Your task to perform on an android device: Show me popular games on the Play Store Image 0: 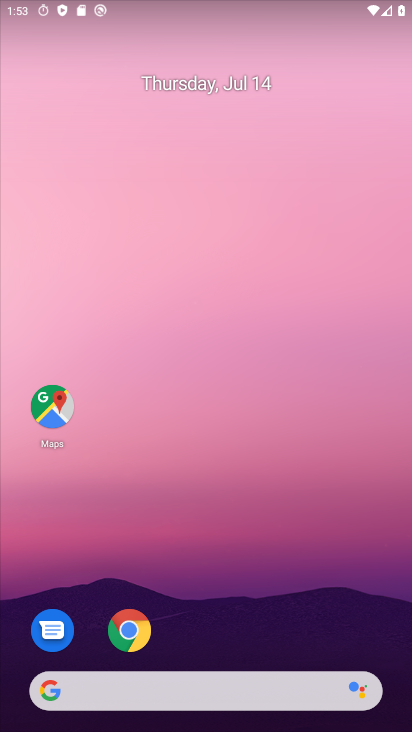
Step 0: drag from (180, 651) to (228, 350)
Your task to perform on an android device: Show me popular games on the Play Store Image 1: 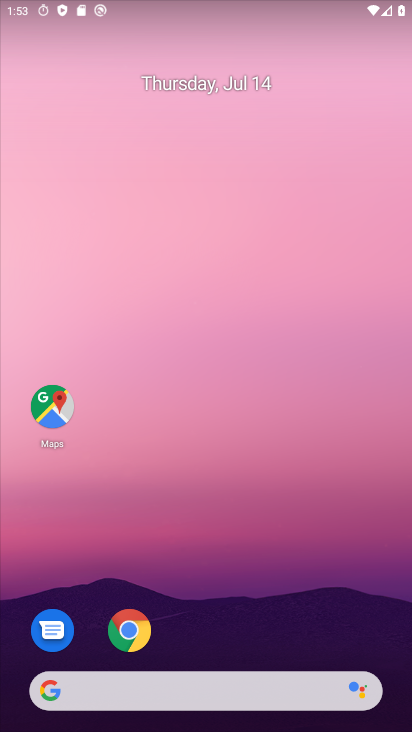
Step 1: drag from (182, 660) to (257, 191)
Your task to perform on an android device: Show me popular games on the Play Store Image 2: 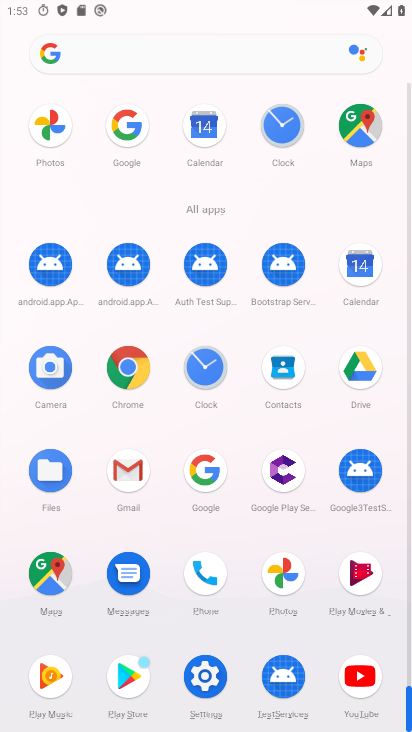
Step 2: click (116, 682)
Your task to perform on an android device: Show me popular games on the Play Store Image 3: 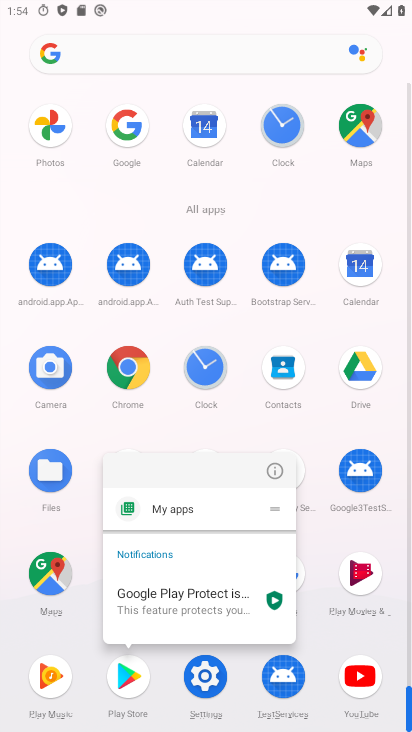
Step 3: click (272, 473)
Your task to perform on an android device: Show me popular games on the Play Store Image 4: 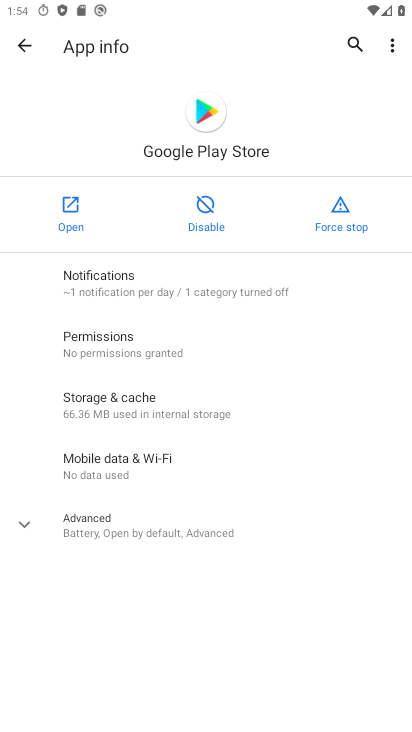
Step 4: click (71, 224)
Your task to perform on an android device: Show me popular games on the Play Store Image 5: 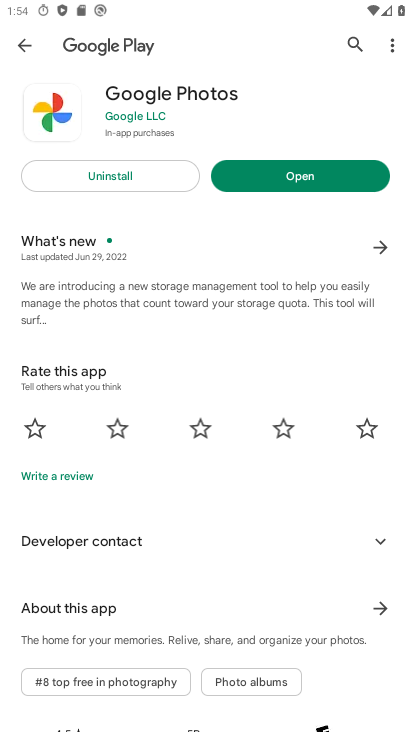
Step 5: click (16, 46)
Your task to perform on an android device: Show me popular games on the Play Store Image 6: 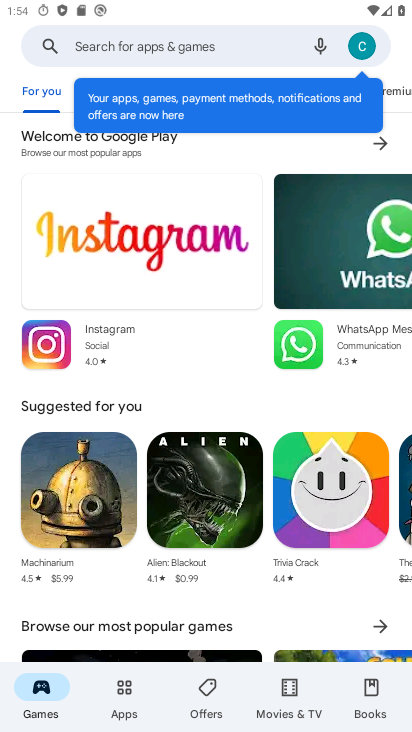
Step 6: drag from (266, 630) to (294, 317)
Your task to perform on an android device: Show me popular games on the Play Store Image 7: 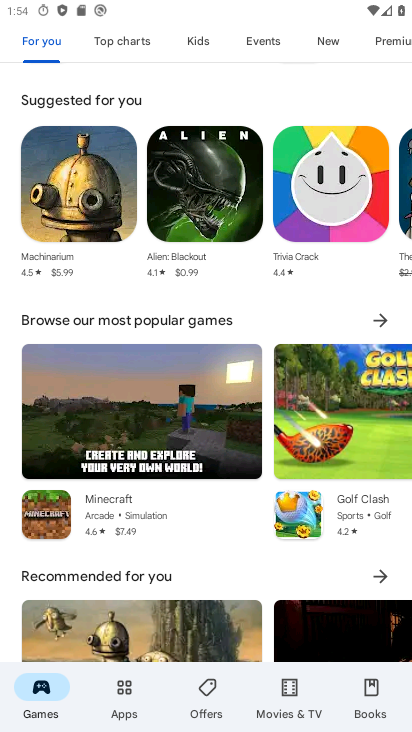
Step 7: click (376, 319)
Your task to perform on an android device: Show me popular games on the Play Store Image 8: 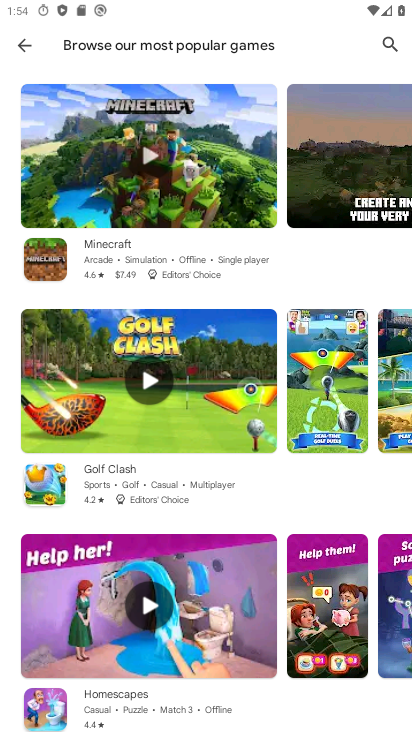
Step 8: task complete